Your task to perform on an android device: turn off notifications in google photos Image 0: 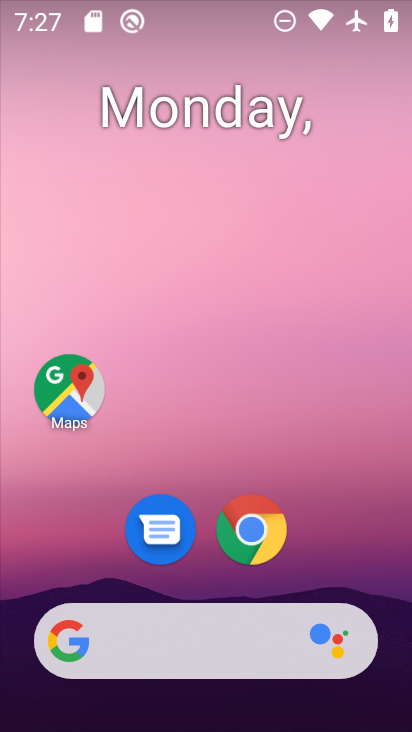
Step 0: drag from (310, 445) to (236, 108)
Your task to perform on an android device: turn off notifications in google photos Image 1: 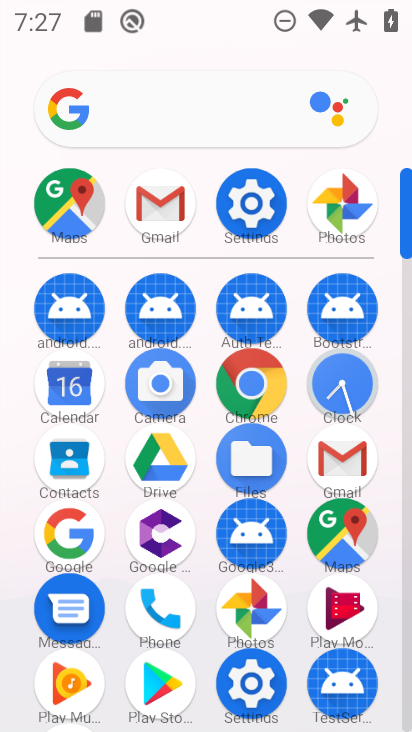
Step 1: click (339, 207)
Your task to perform on an android device: turn off notifications in google photos Image 2: 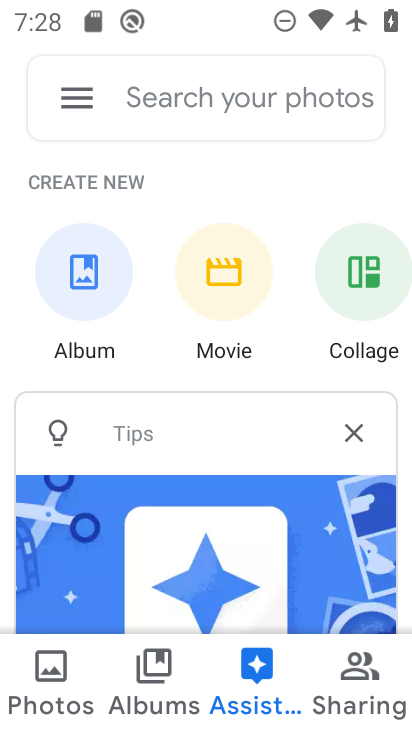
Step 2: click (76, 99)
Your task to perform on an android device: turn off notifications in google photos Image 3: 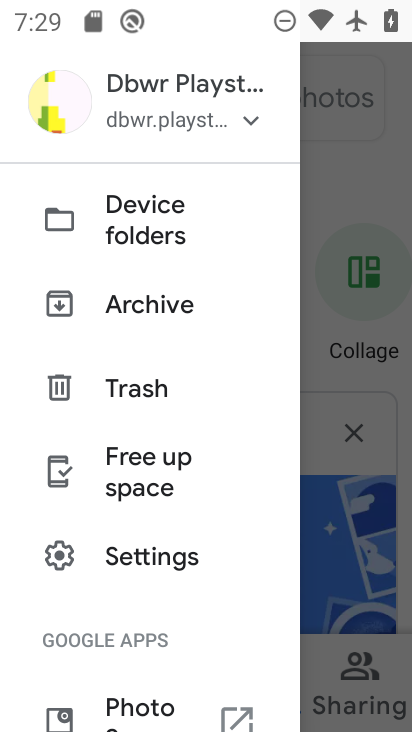
Step 3: click (139, 554)
Your task to perform on an android device: turn off notifications in google photos Image 4: 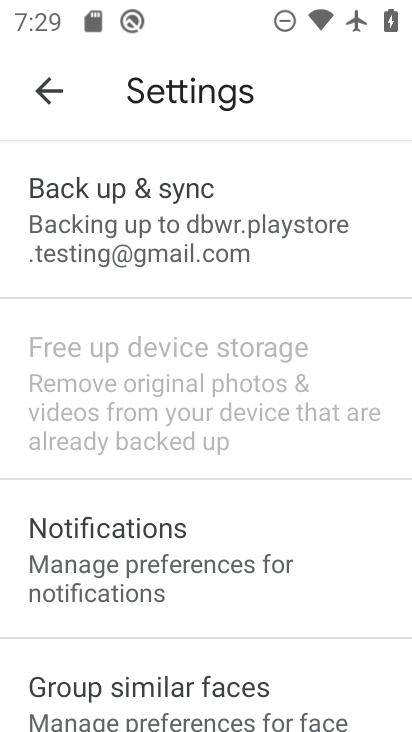
Step 4: click (125, 518)
Your task to perform on an android device: turn off notifications in google photos Image 5: 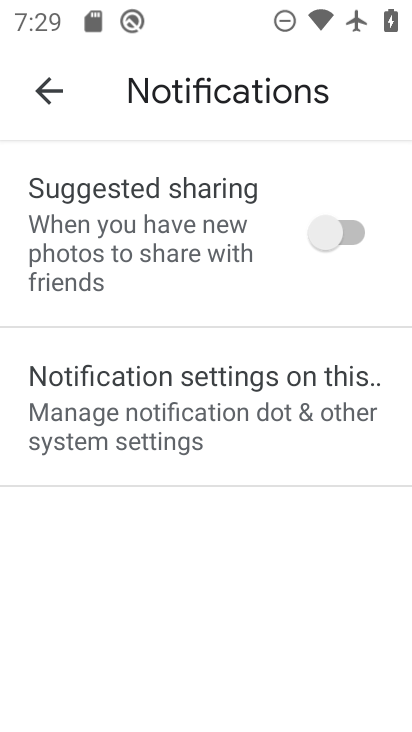
Step 5: click (205, 367)
Your task to perform on an android device: turn off notifications in google photos Image 6: 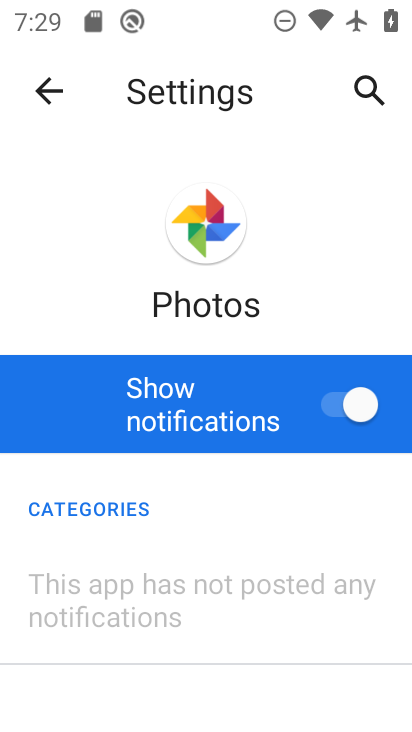
Step 6: click (349, 408)
Your task to perform on an android device: turn off notifications in google photos Image 7: 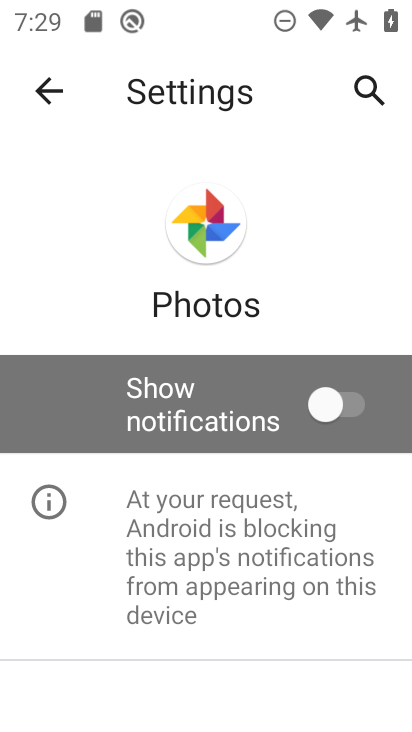
Step 7: task complete